Your task to perform on an android device: Open the map Image 0: 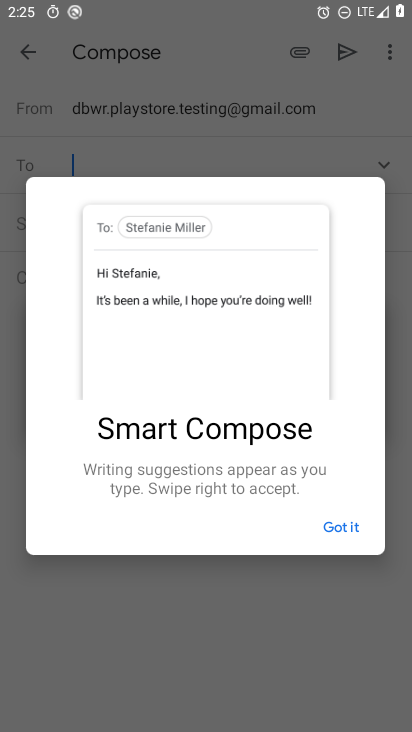
Step 0: press home button
Your task to perform on an android device: Open the map Image 1: 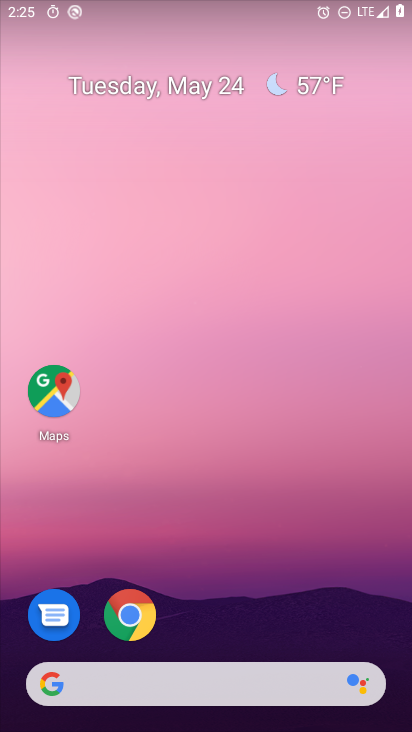
Step 1: click (51, 383)
Your task to perform on an android device: Open the map Image 2: 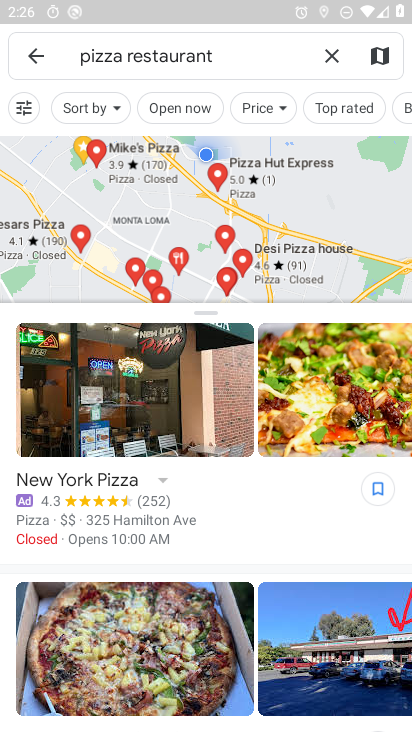
Step 2: click (330, 52)
Your task to perform on an android device: Open the map Image 3: 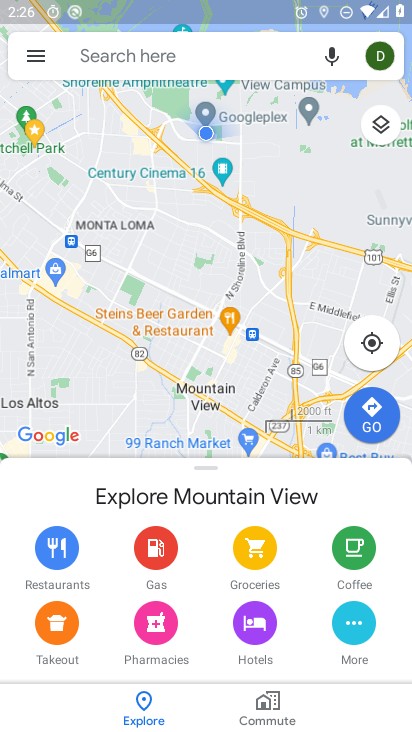
Step 3: task complete